Your task to perform on an android device: turn off improve location accuracy Image 0: 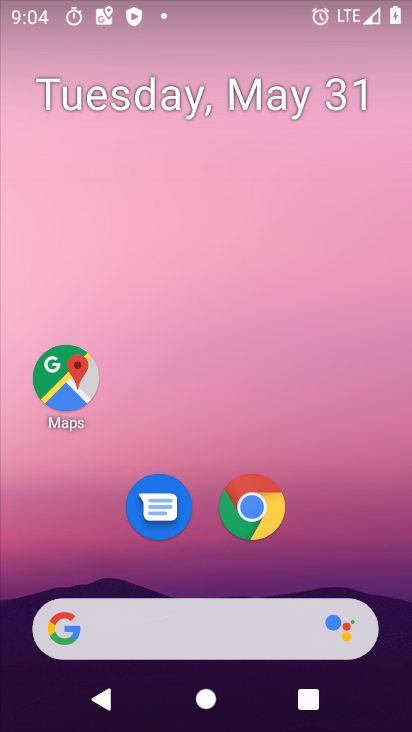
Step 0: drag from (28, 603) to (242, 175)
Your task to perform on an android device: turn off improve location accuracy Image 1: 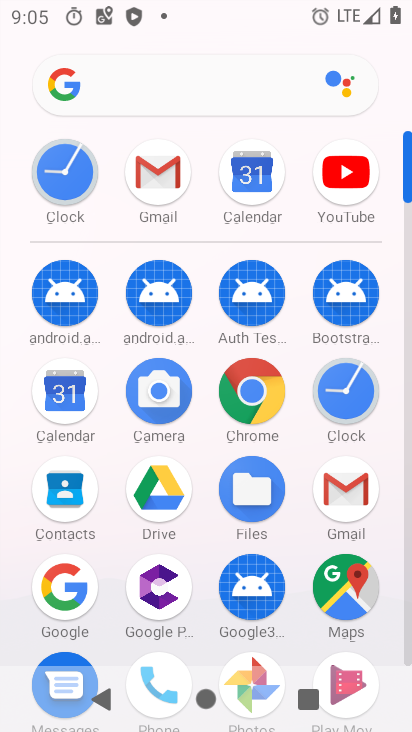
Step 1: drag from (37, 500) to (284, 68)
Your task to perform on an android device: turn off improve location accuracy Image 2: 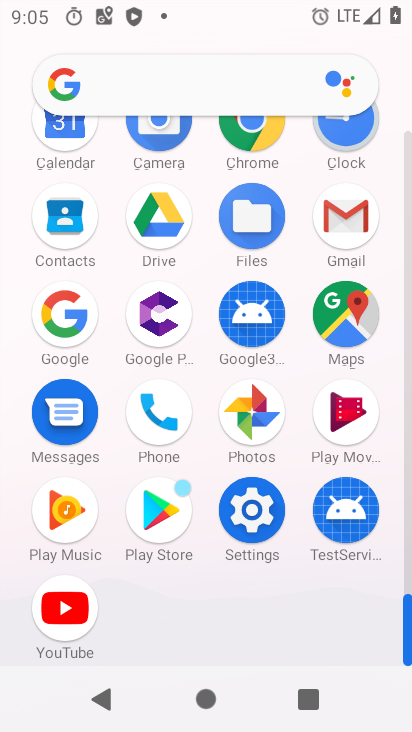
Step 2: click (257, 509)
Your task to perform on an android device: turn off improve location accuracy Image 3: 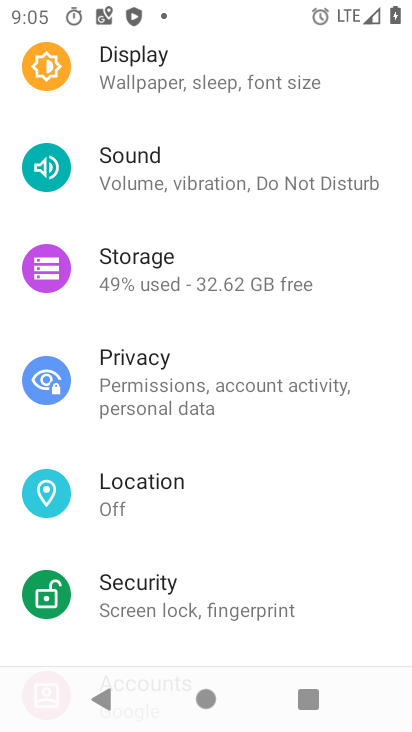
Step 3: click (105, 494)
Your task to perform on an android device: turn off improve location accuracy Image 4: 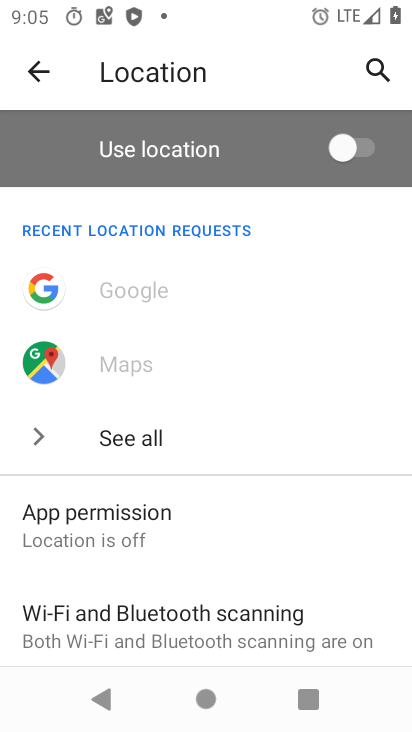
Step 4: drag from (27, 533) to (222, 211)
Your task to perform on an android device: turn off improve location accuracy Image 5: 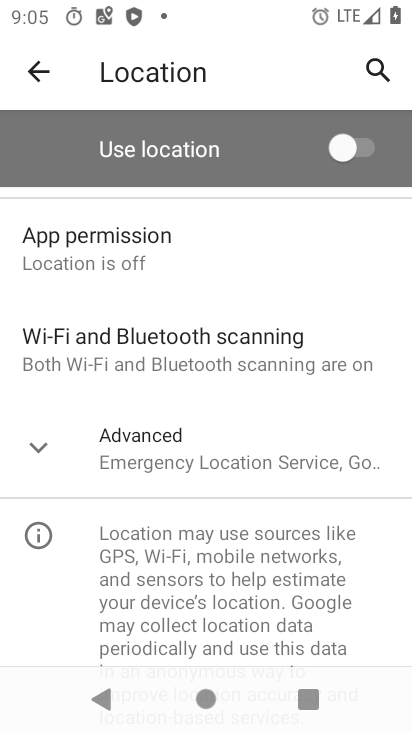
Step 5: click (141, 473)
Your task to perform on an android device: turn off improve location accuracy Image 6: 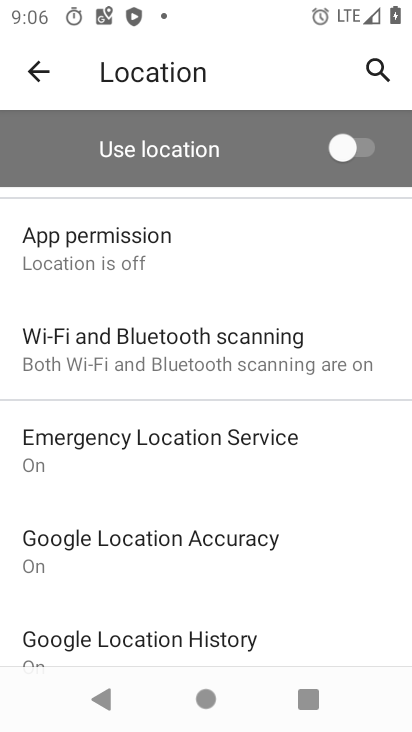
Step 6: click (134, 557)
Your task to perform on an android device: turn off improve location accuracy Image 7: 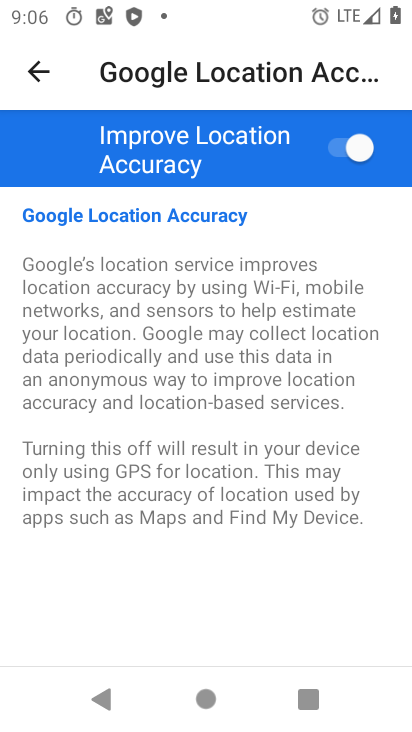
Step 7: click (373, 142)
Your task to perform on an android device: turn off improve location accuracy Image 8: 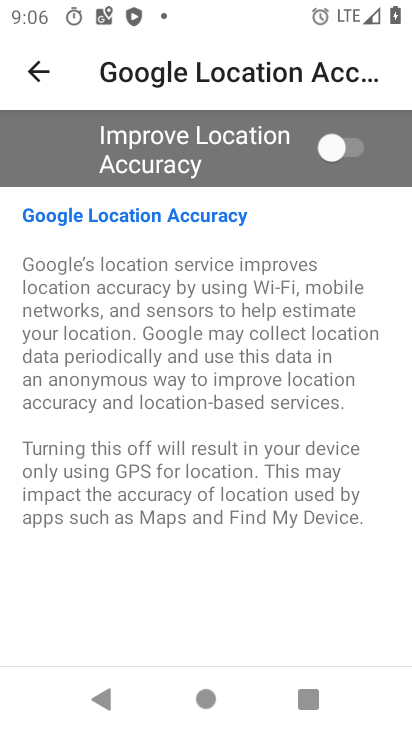
Step 8: task complete